Your task to perform on an android device: turn notification dots on Image 0: 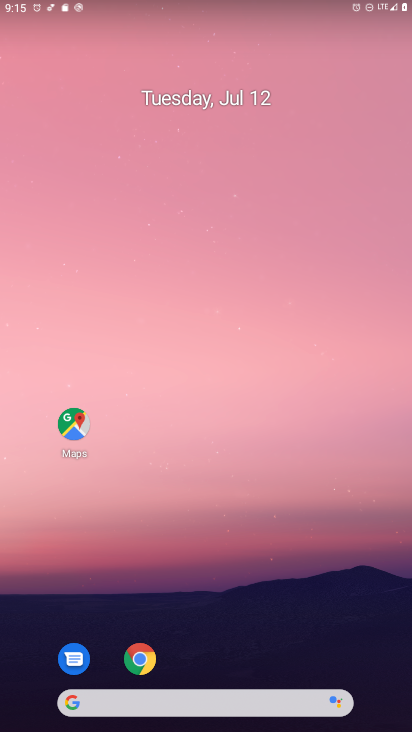
Step 0: drag from (198, 700) to (197, 198)
Your task to perform on an android device: turn notification dots on Image 1: 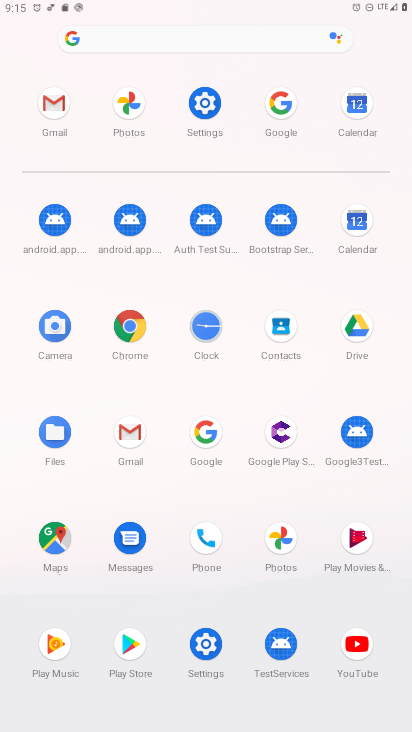
Step 1: click (204, 99)
Your task to perform on an android device: turn notification dots on Image 2: 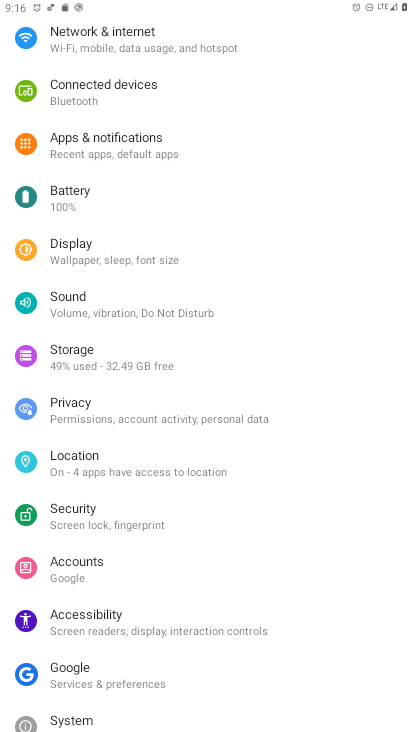
Step 2: click (130, 151)
Your task to perform on an android device: turn notification dots on Image 3: 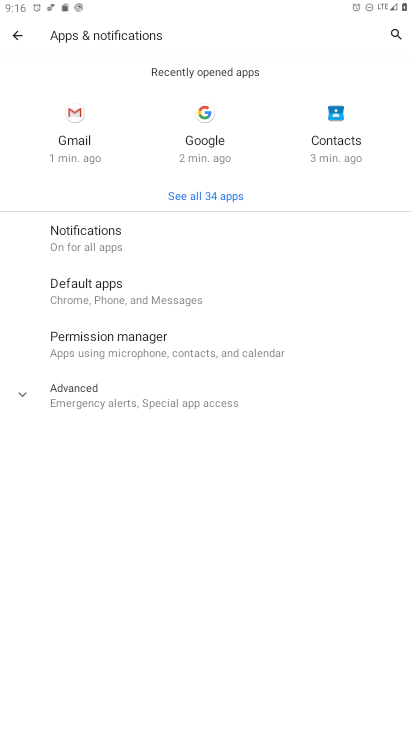
Step 3: click (100, 236)
Your task to perform on an android device: turn notification dots on Image 4: 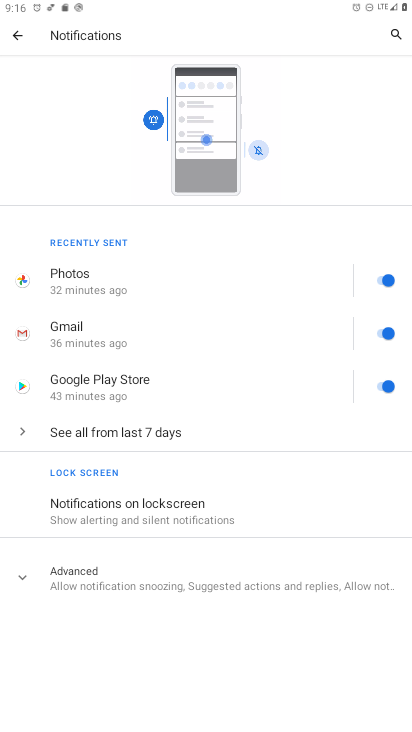
Step 4: click (145, 585)
Your task to perform on an android device: turn notification dots on Image 5: 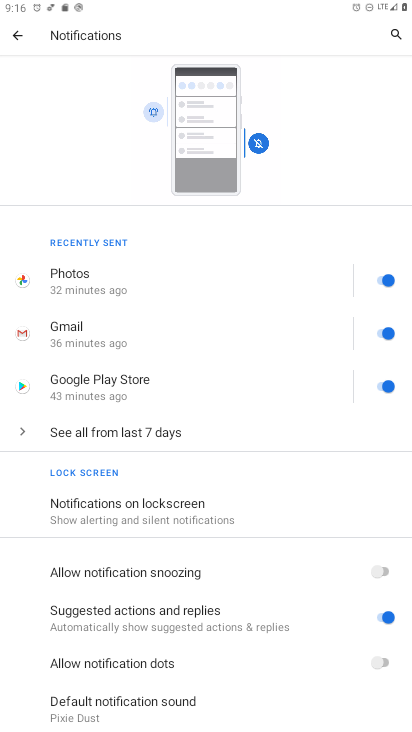
Step 5: click (378, 662)
Your task to perform on an android device: turn notification dots on Image 6: 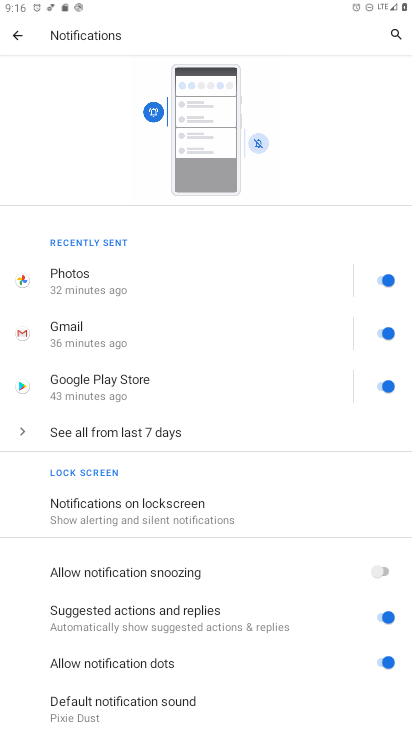
Step 6: task complete